Your task to perform on an android device: turn off notifications in google photos Image 0: 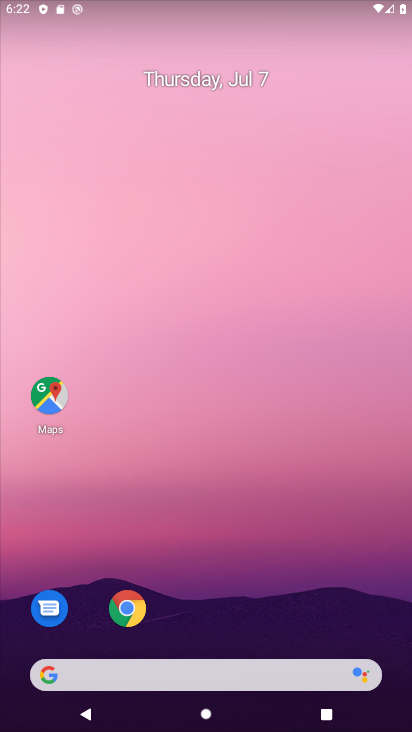
Step 0: drag from (263, 612) to (225, 43)
Your task to perform on an android device: turn off notifications in google photos Image 1: 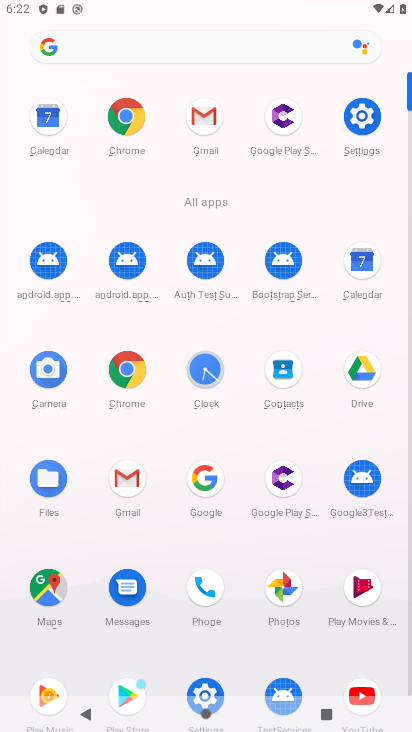
Step 1: click (293, 589)
Your task to perform on an android device: turn off notifications in google photos Image 2: 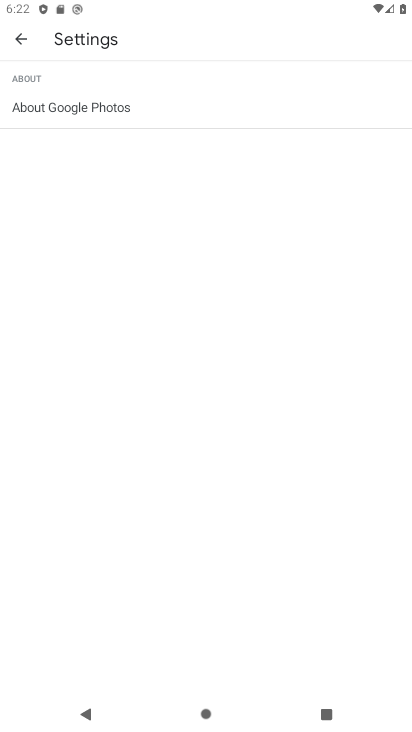
Step 2: click (21, 33)
Your task to perform on an android device: turn off notifications in google photos Image 3: 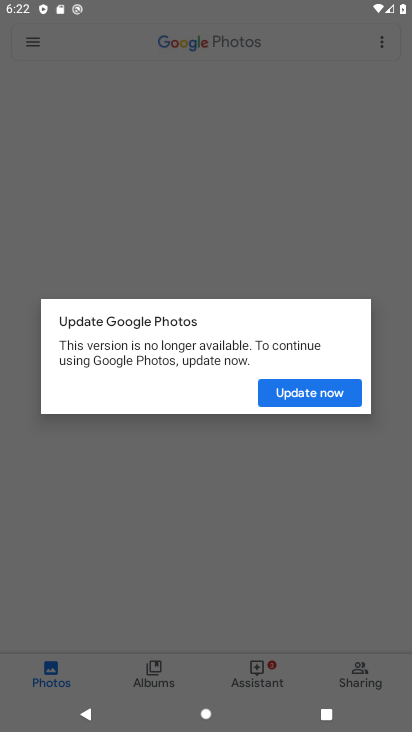
Step 3: press back button
Your task to perform on an android device: turn off notifications in google photos Image 4: 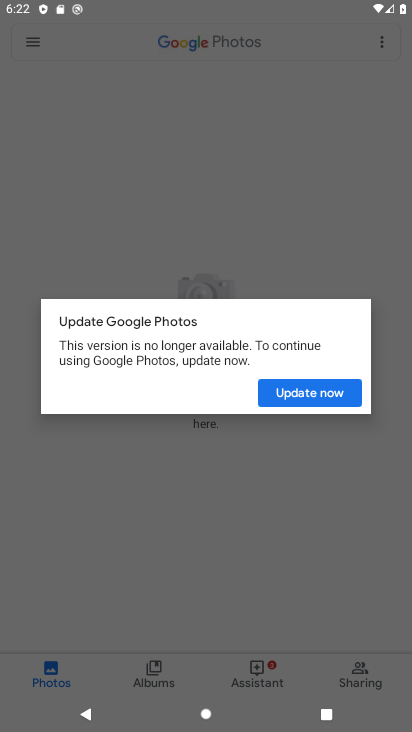
Step 4: click (267, 391)
Your task to perform on an android device: turn off notifications in google photos Image 5: 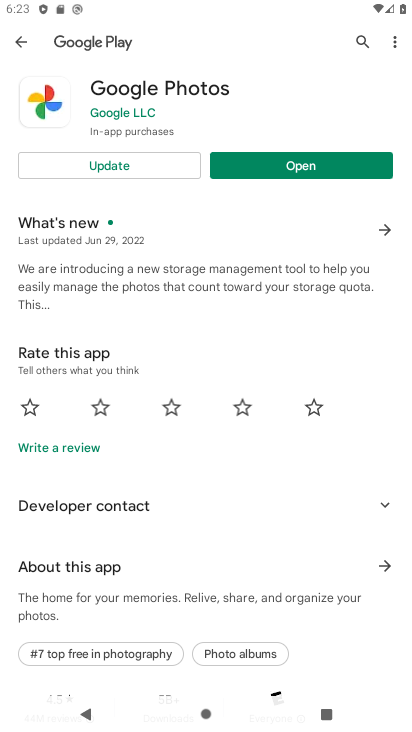
Step 5: click (304, 158)
Your task to perform on an android device: turn off notifications in google photos Image 6: 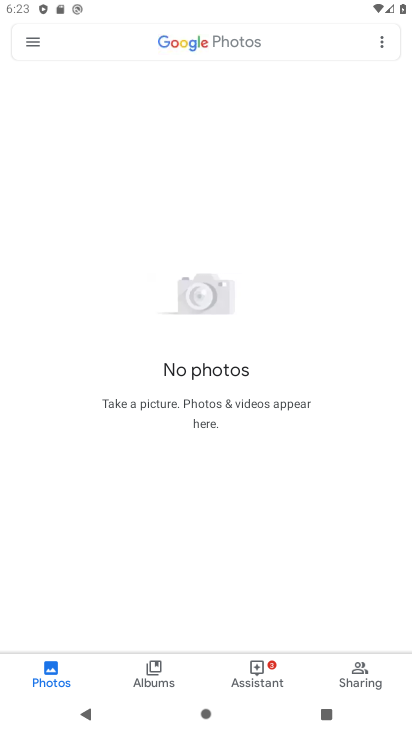
Step 6: click (48, 678)
Your task to perform on an android device: turn off notifications in google photos Image 7: 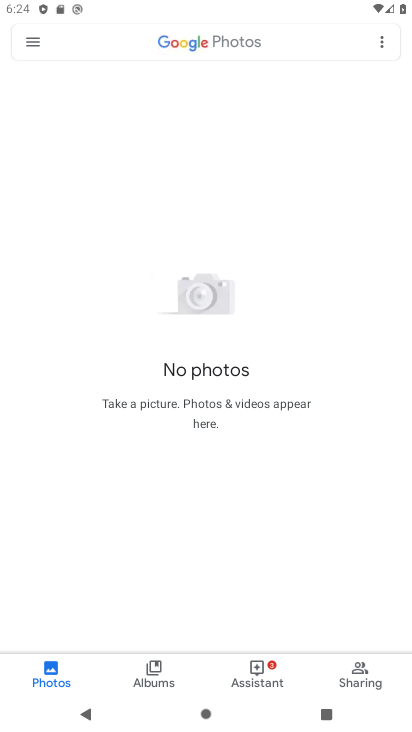
Step 7: click (30, 37)
Your task to perform on an android device: turn off notifications in google photos Image 8: 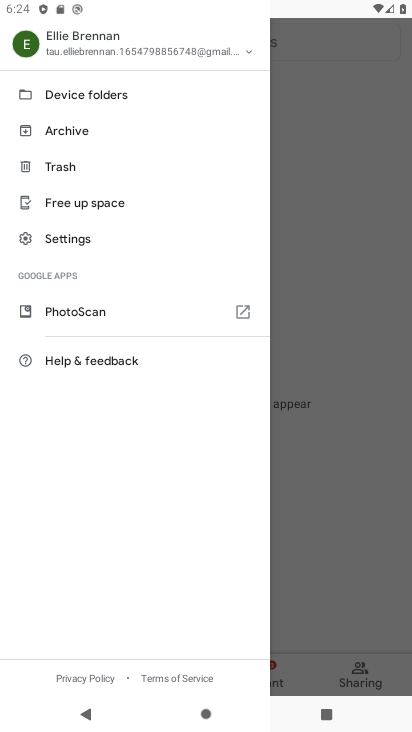
Step 8: click (77, 240)
Your task to perform on an android device: turn off notifications in google photos Image 9: 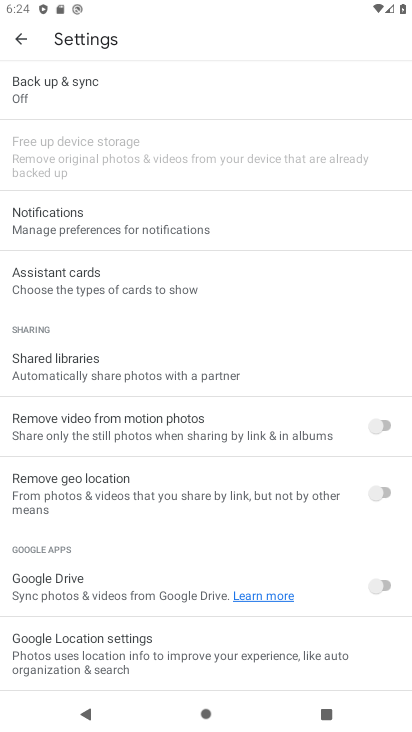
Step 9: drag from (105, 648) to (245, 2)
Your task to perform on an android device: turn off notifications in google photos Image 10: 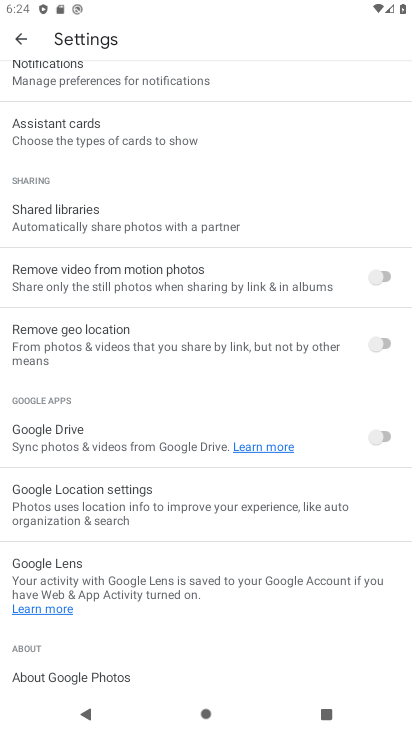
Step 10: drag from (168, 193) to (128, 600)
Your task to perform on an android device: turn off notifications in google photos Image 11: 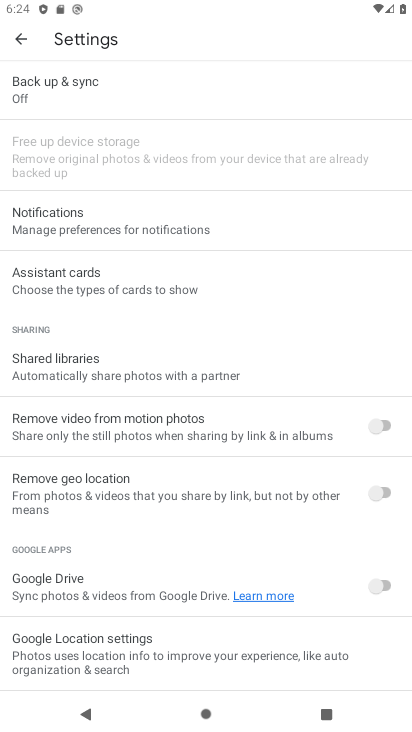
Step 11: click (81, 232)
Your task to perform on an android device: turn off notifications in google photos Image 12: 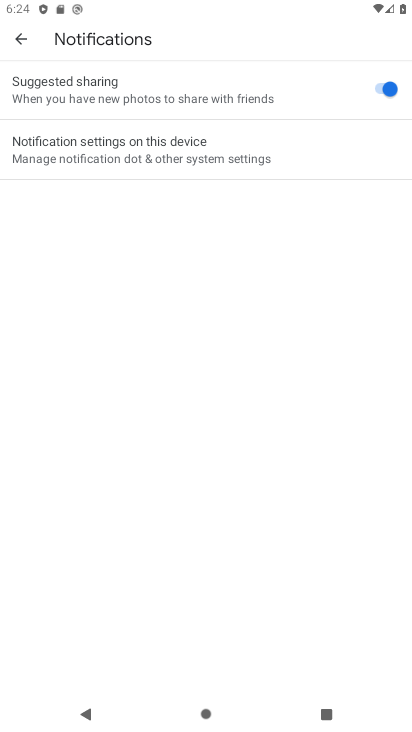
Step 12: click (169, 163)
Your task to perform on an android device: turn off notifications in google photos Image 13: 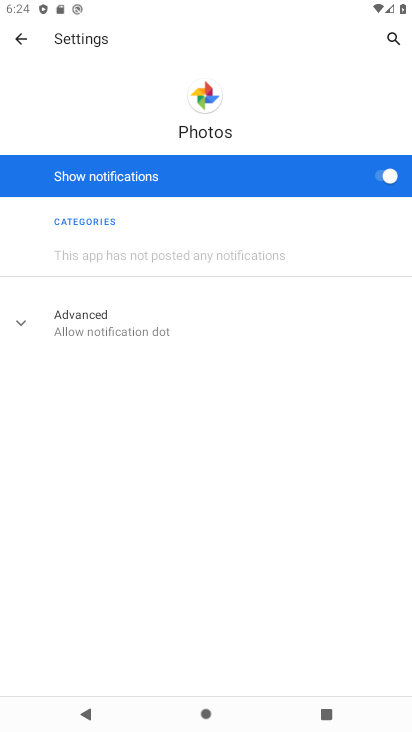
Step 13: click (391, 173)
Your task to perform on an android device: turn off notifications in google photos Image 14: 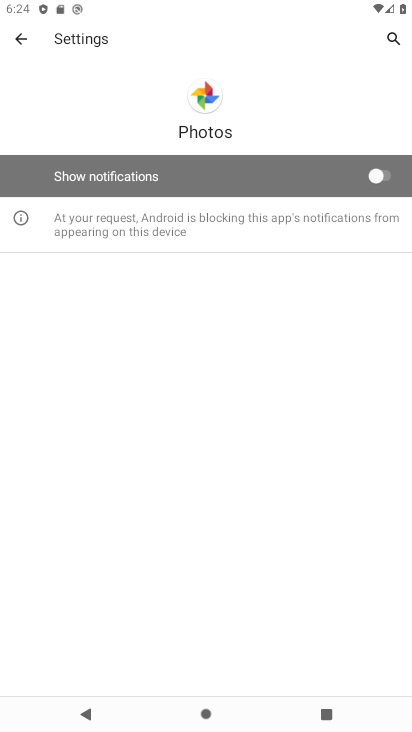
Step 14: task complete